Your task to perform on an android device: Search for vegetarian restaurants on Maps Image 0: 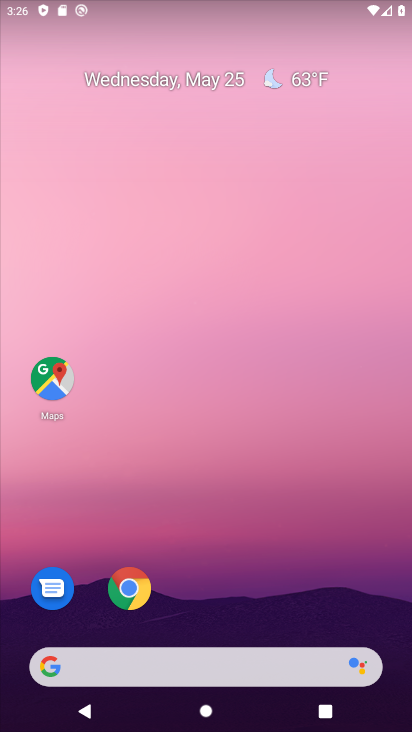
Step 0: drag from (244, 579) to (165, 144)
Your task to perform on an android device: Search for vegetarian restaurants on Maps Image 1: 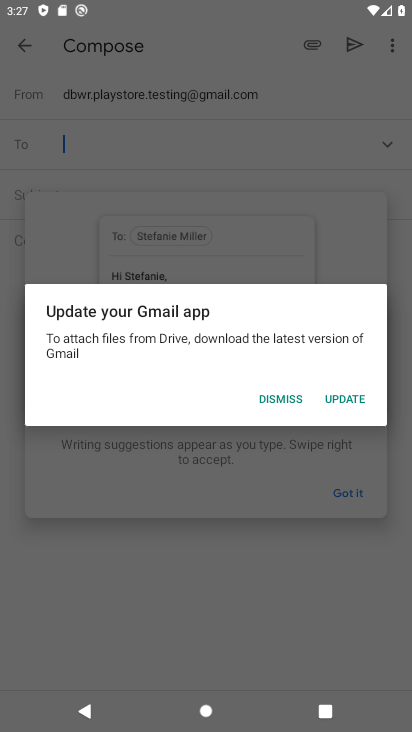
Step 1: press home button
Your task to perform on an android device: Search for vegetarian restaurants on Maps Image 2: 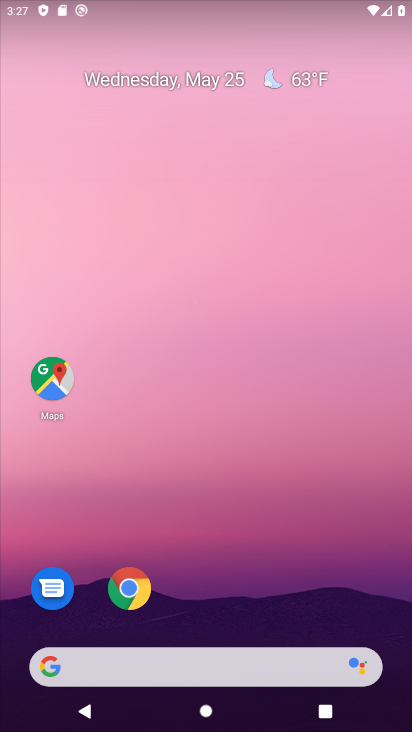
Step 2: click (56, 383)
Your task to perform on an android device: Search for vegetarian restaurants on Maps Image 3: 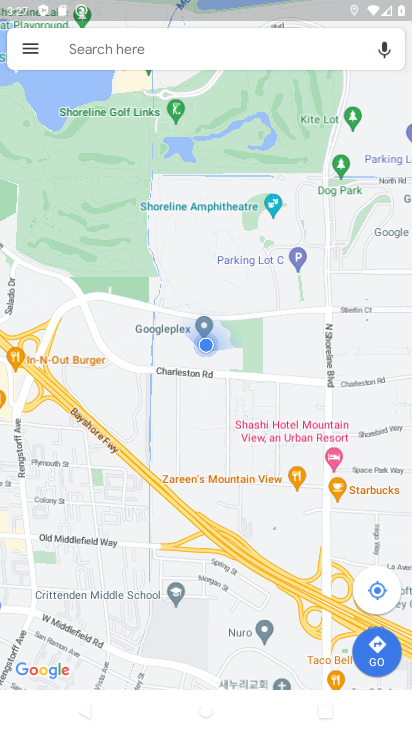
Step 3: click (99, 47)
Your task to perform on an android device: Search for vegetarian restaurants on Maps Image 4: 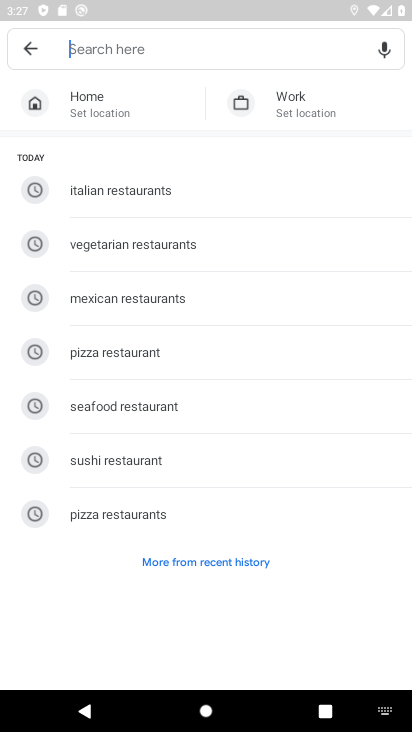
Step 4: click (188, 238)
Your task to perform on an android device: Search for vegetarian restaurants on Maps Image 5: 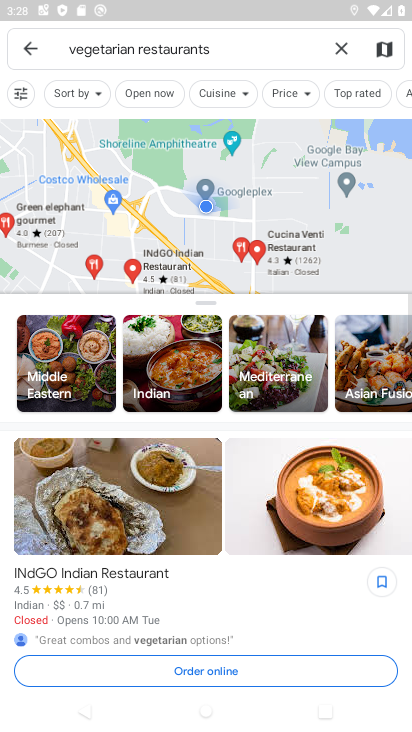
Step 5: task complete